Your task to perform on an android device: toggle airplane mode Image 0: 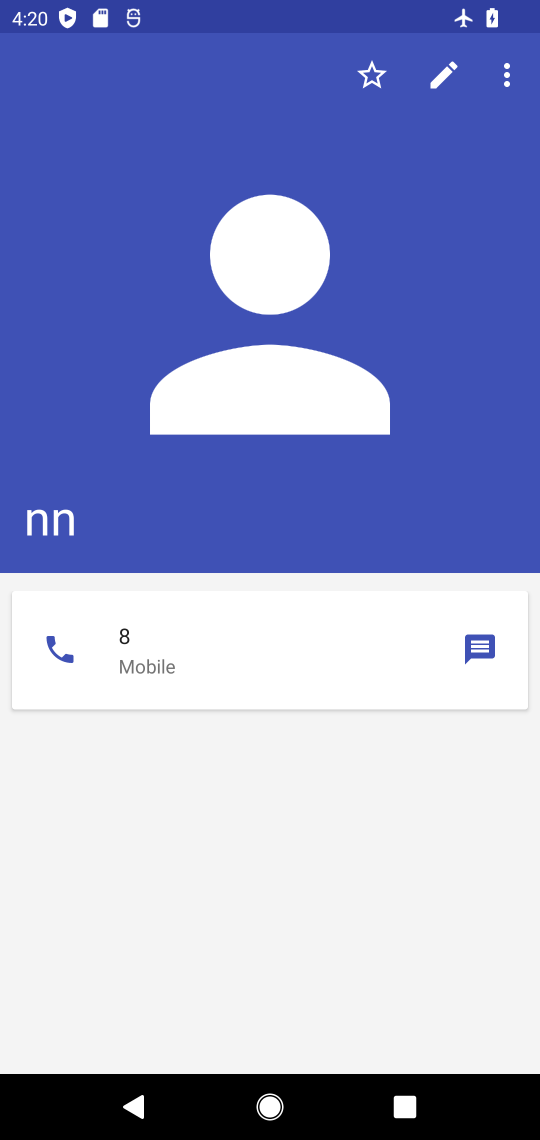
Step 0: press home button
Your task to perform on an android device: toggle airplane mode Image 1: 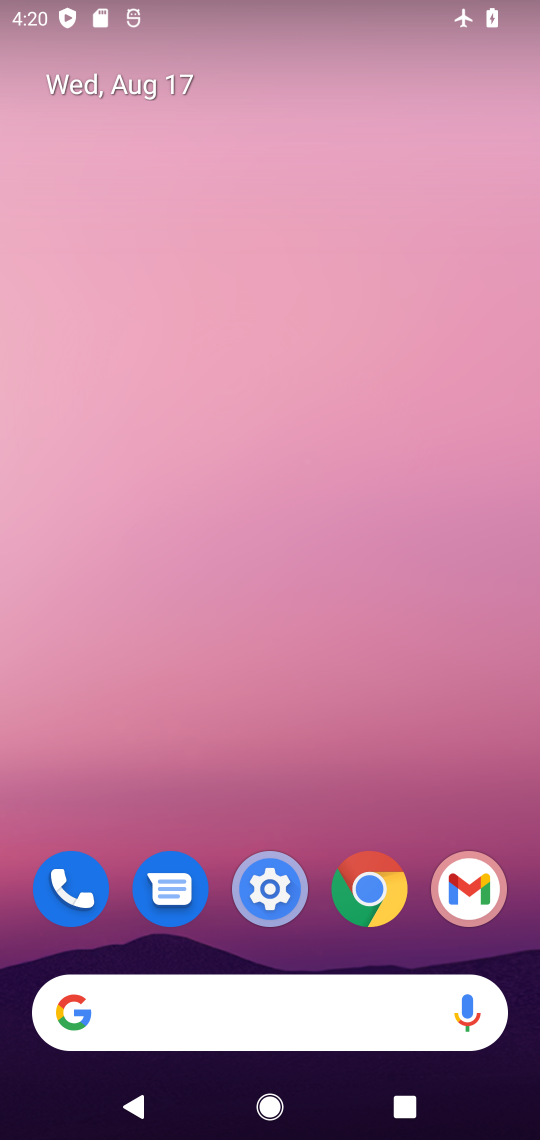
Step 1: click (255, 909)
Your task to perform on an android device: toggle airplane mode Image 2: 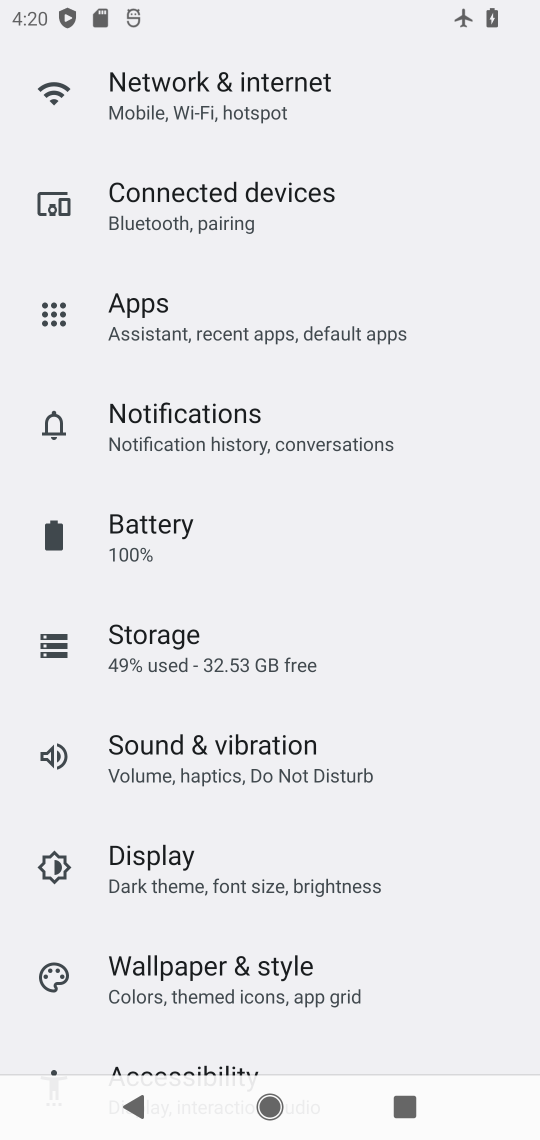
Step 2: click (182, 79)
Your task to perform on an android device: toggle airplane mode Image 3: 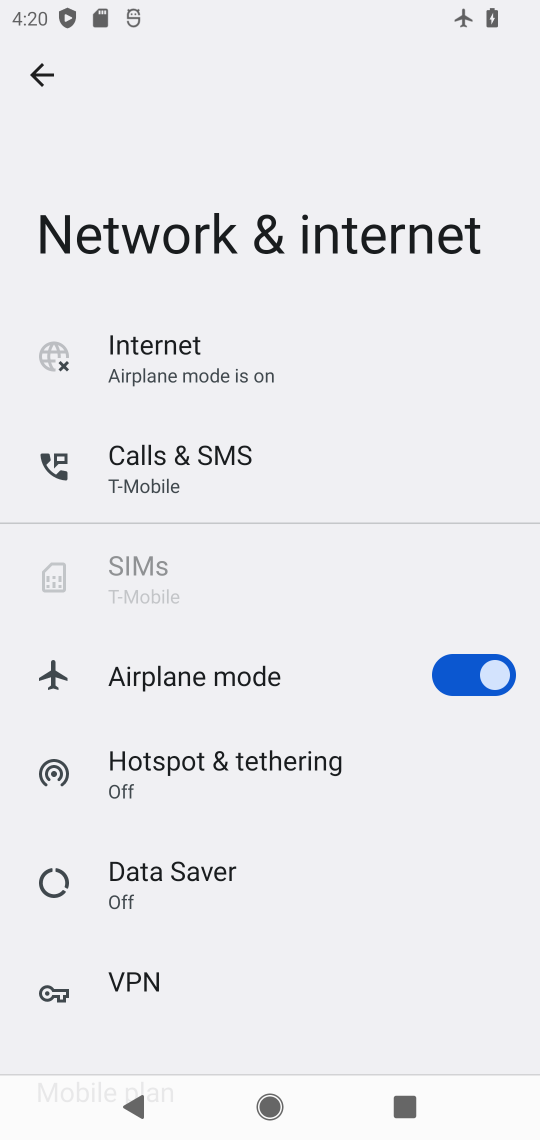
Step 3: click (481, 675)
Your task to perform on an android device: toggle airplane mode Image 4: 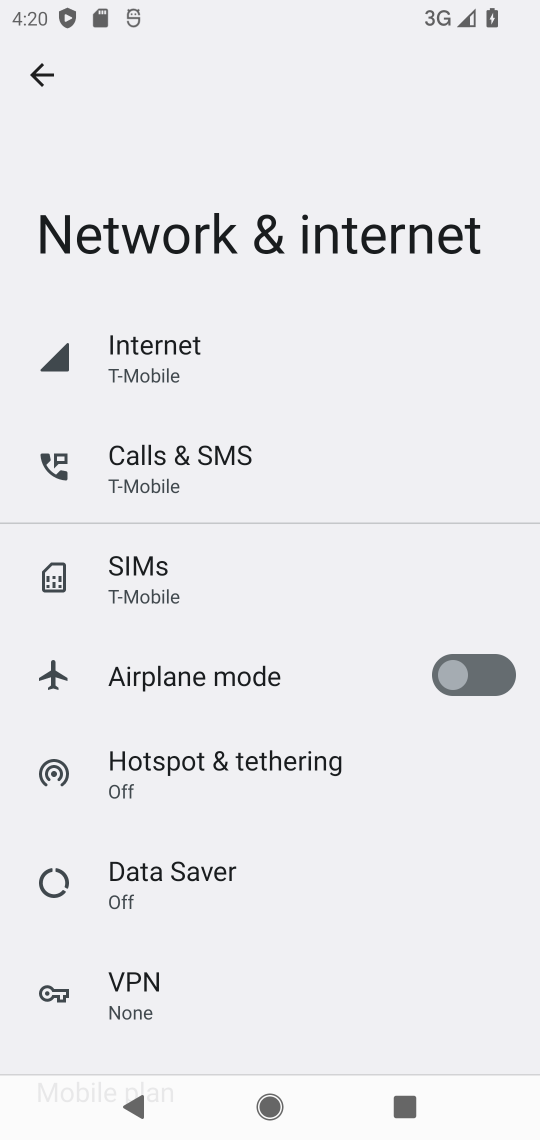
Step 4: task complete